Your task to perform on an android device: Go to internet settings Image 0: 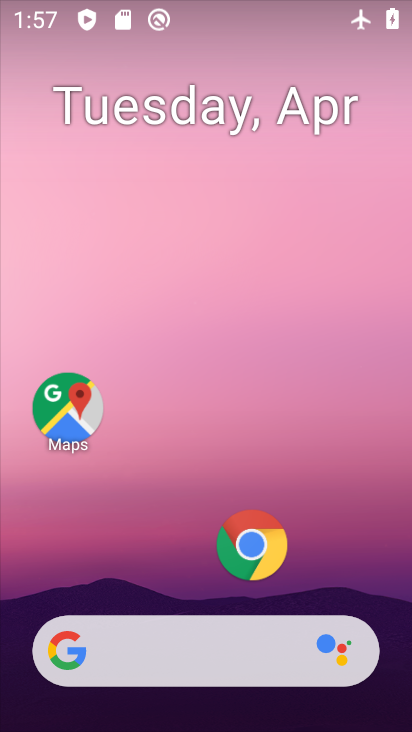
Step 0: drag from (126, 559) to (181, 182)
Your task to perform on an android device: Go to internet settings Image 1: 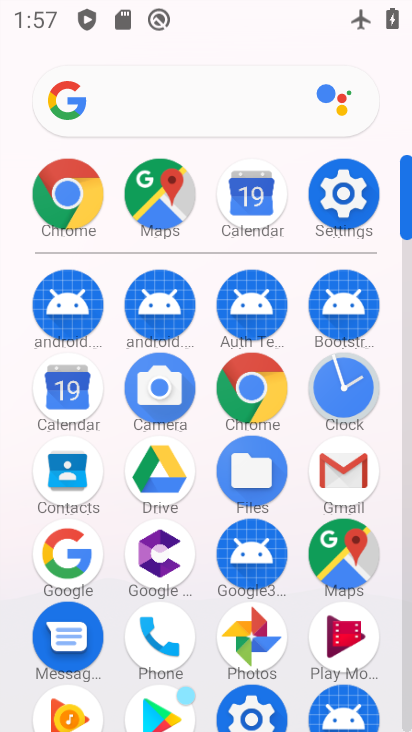
Step 1: click (356, 188)
Your task to perform on an android device: Go to internet settings Image 2: 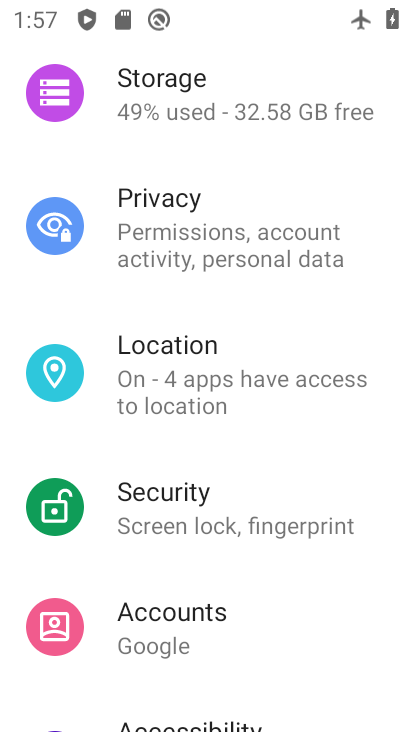
Step 2: drag from (257, 134) to (205, 688)
Your task to perform on an android device: Go to internet settings Image 3: 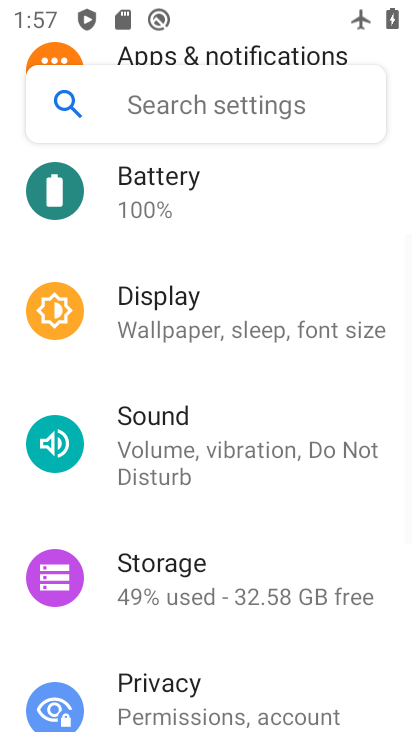
Step 3: drag from (216, 182) to (185, 691)
Your task to perform on an android device: Go to internet settings Image 4: 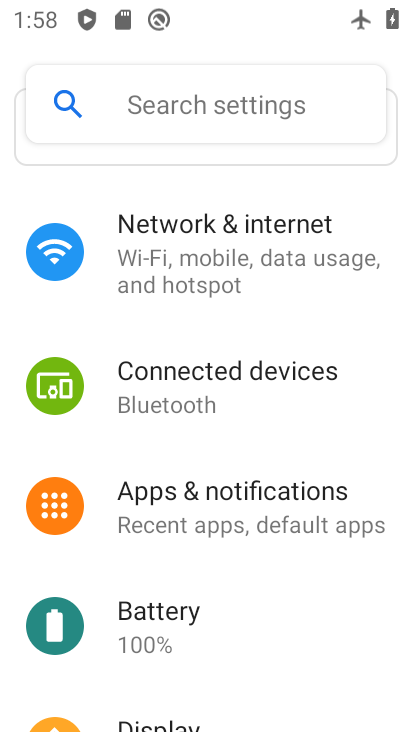
Step 4: click (206, 231)
Your task to perform on an android device: Go to internet settings Image 5: 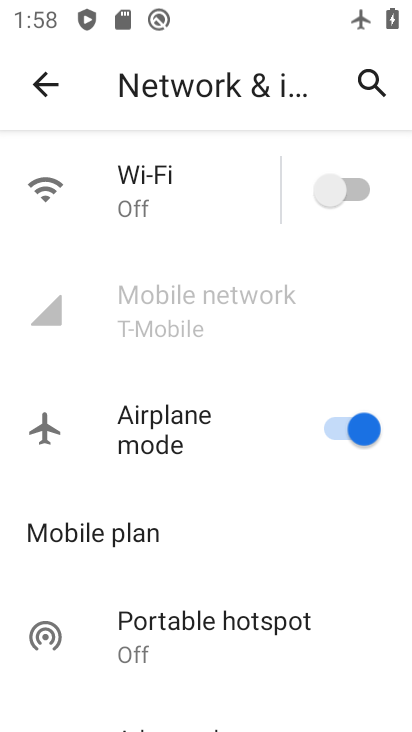
Step 5: click (212, 301)
Your task to perform on an android device: Go to internet settings Image 6: 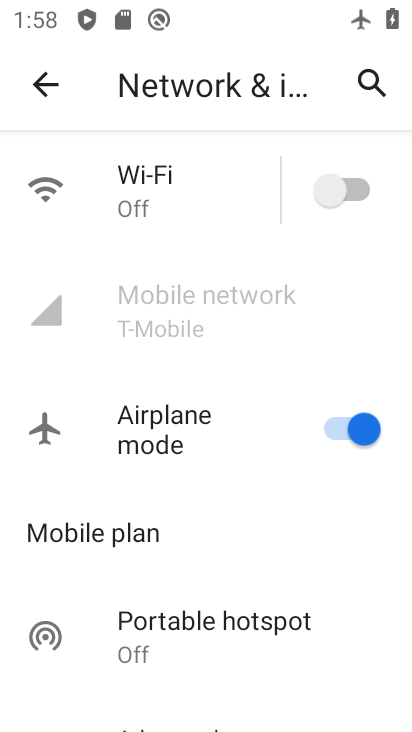
Step 6: click (246, 303)
Your task to perform on an android device: Go to internet settings Image 7: 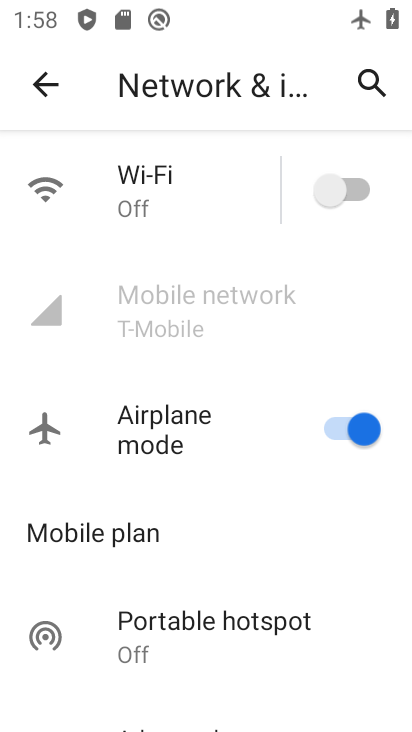
Step 7: task complete